Your task to perform on an android device: open chrome privacy settings Image 0: 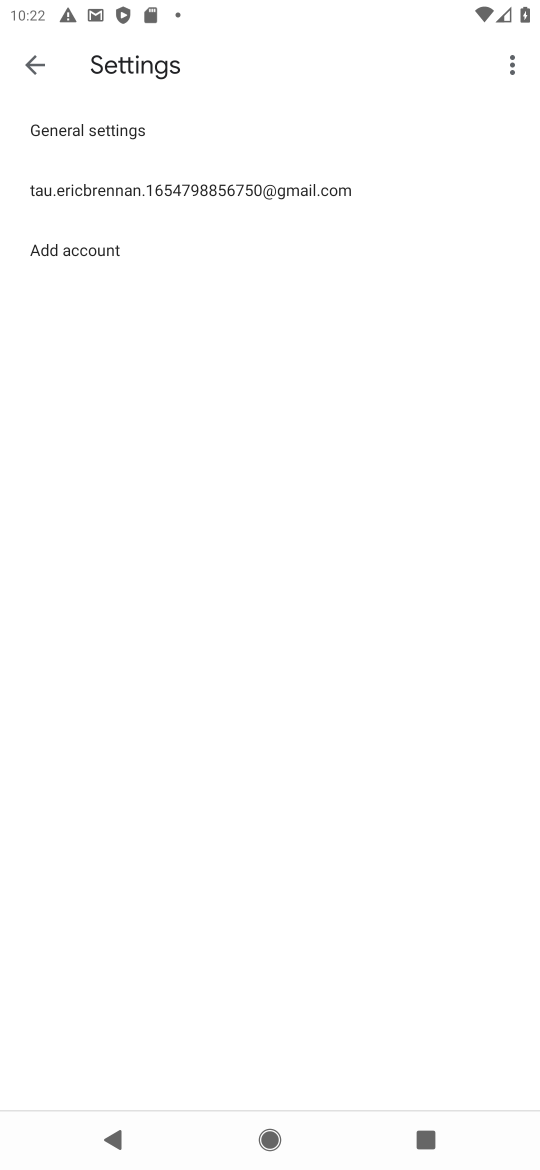
Step 0: press home button
Your task to perform on an android device: open chrome privacy settings Image 1: 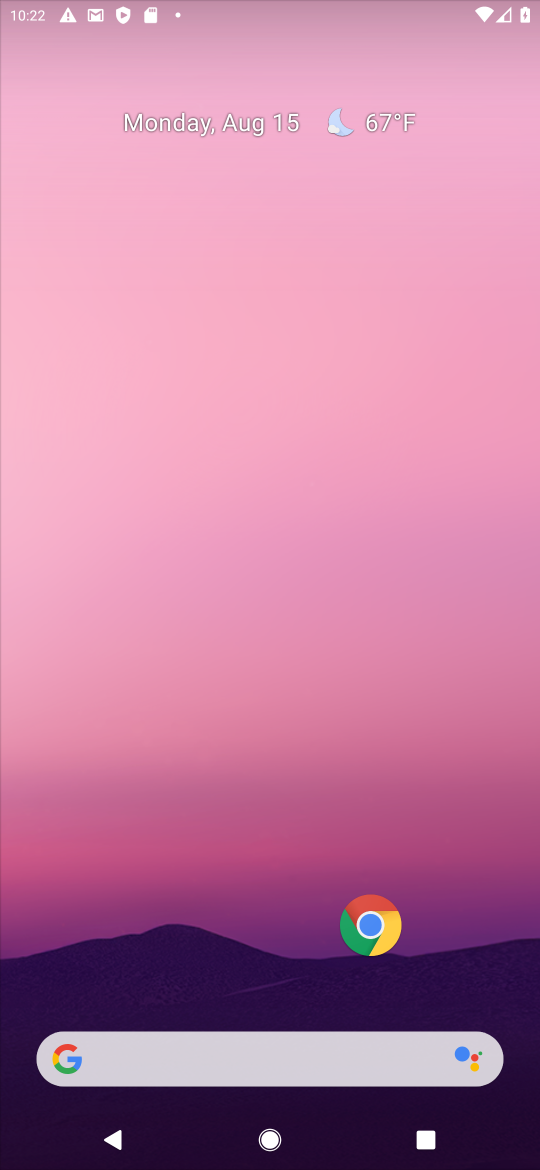
Step 1: drag from (298, 1134) to (209, 198)
Your task to perform on an android device: open chrome privacy settings Image 2: 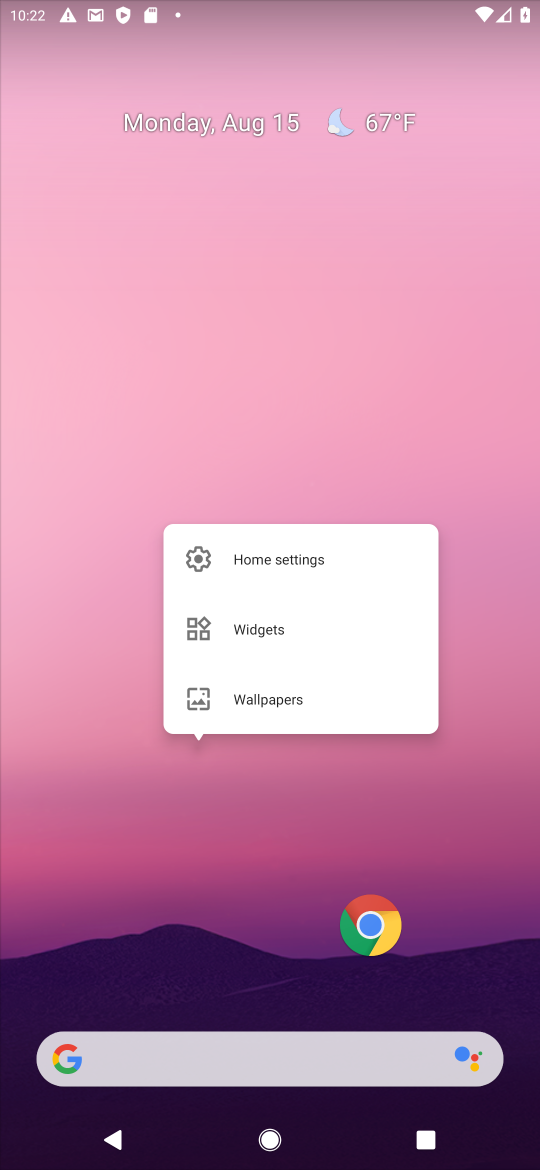
Step 2: drag from (452, 992) to (357, 37)
Your task to perform on an android device: open chrome privacy settings Image 3: 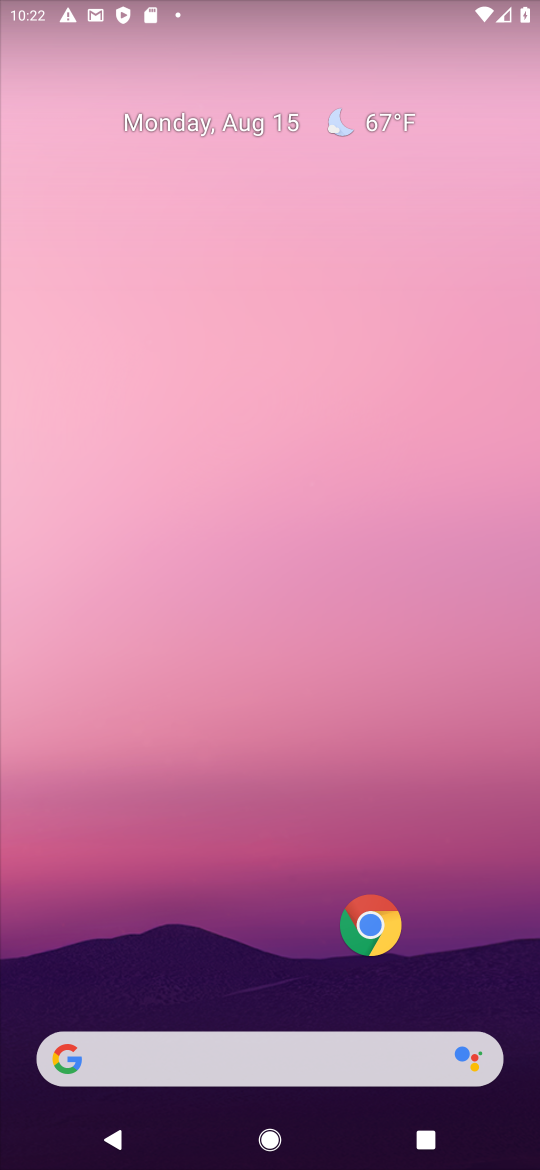
Step 3: drag from (221, 885) to (164, 21)
Your task to perform on an android device: open chrome privacy settings Image 4: 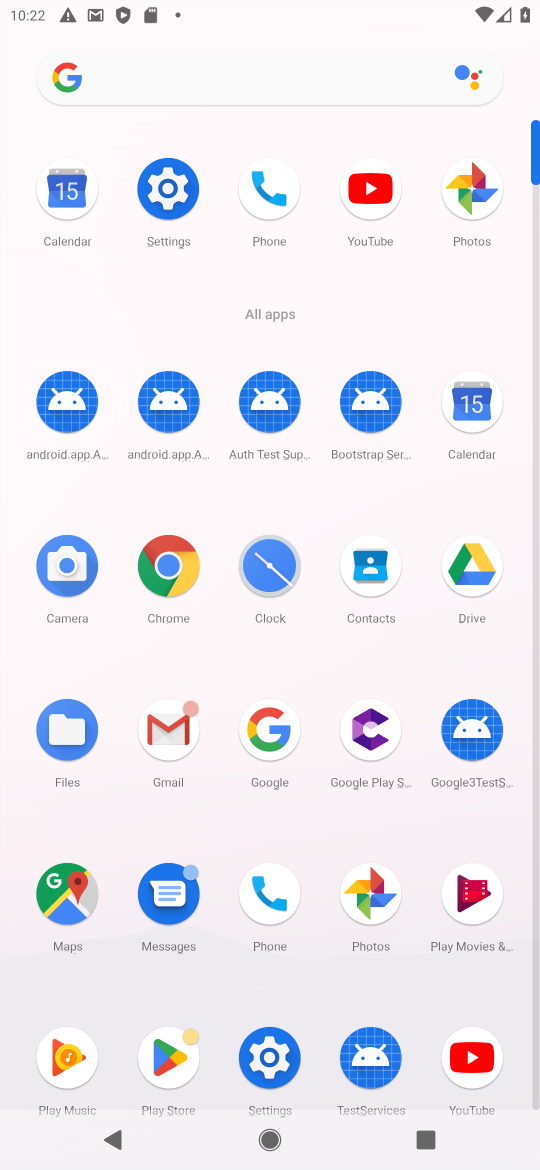
Step 4: click (146, 548)
Your task to perform on an android device: open chrome privacy settings Image 5: 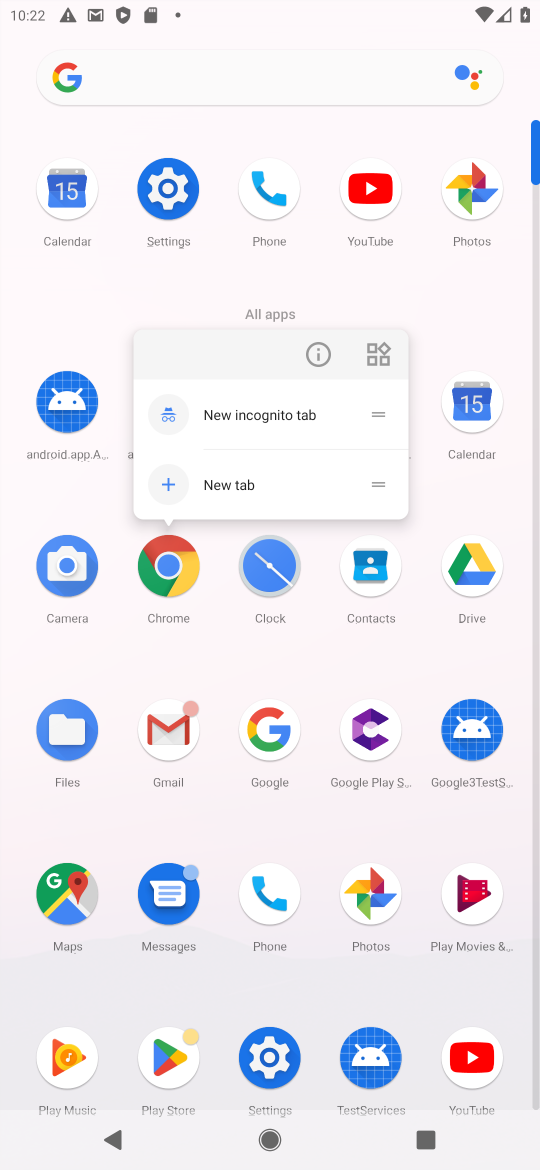
Step 5: click (170, 576)
Your task to perform on an android device: open chrome privacy settings Image 6: 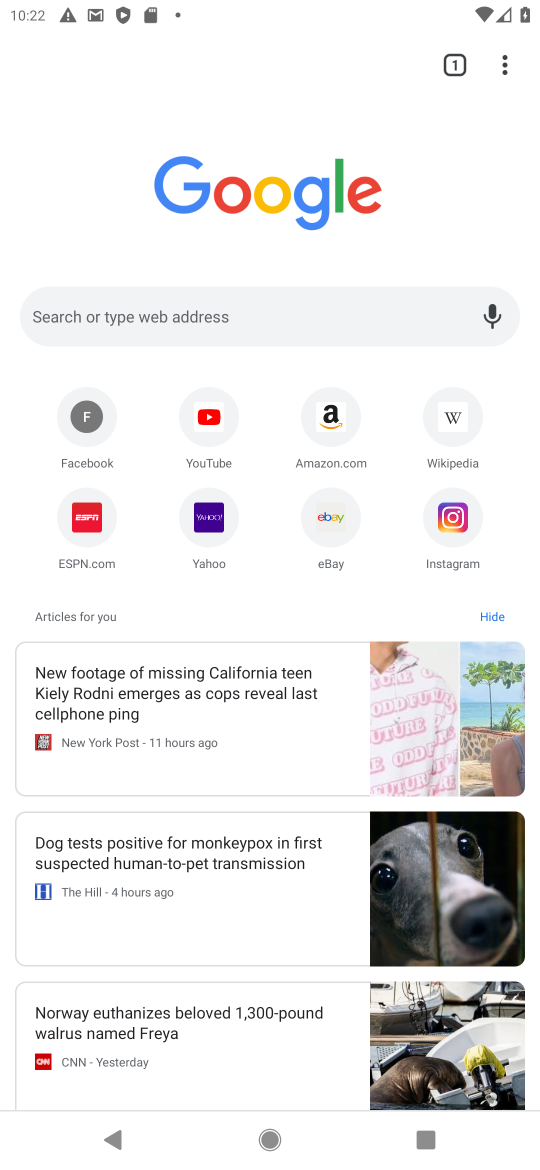
Step 6: drag from (509, 71) to (371, 547)
Your task to perform on an android device: open chrome privacy settings Image 7: 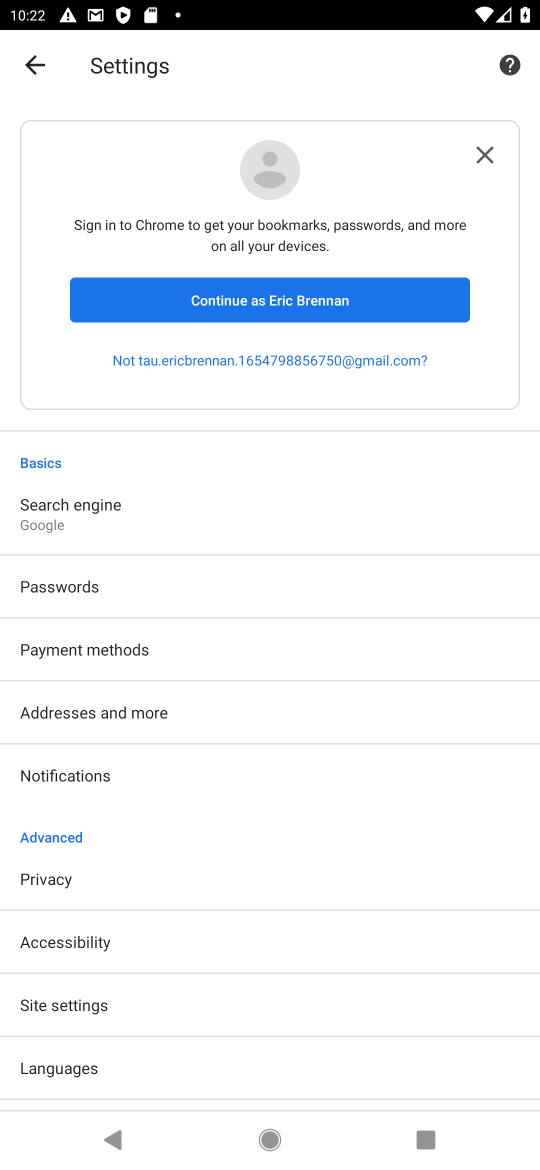
Step 7: click (121, 885)
Your task to perform on an android device: open chrome privacy settings Image 8: 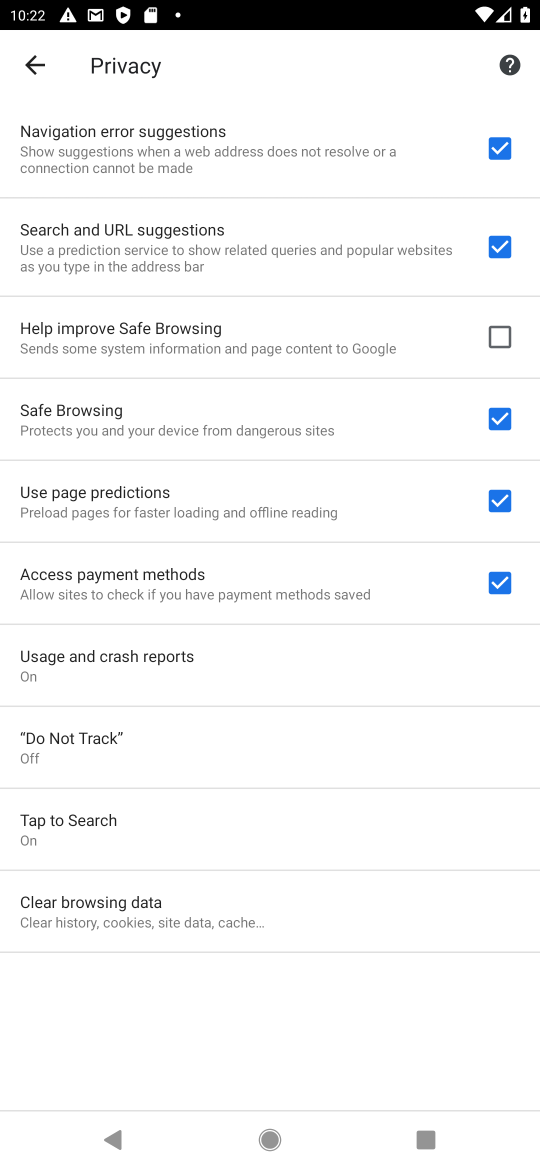
Step 8: task complete